Your task to perform on an android device: Do I have any events today? Image 0: 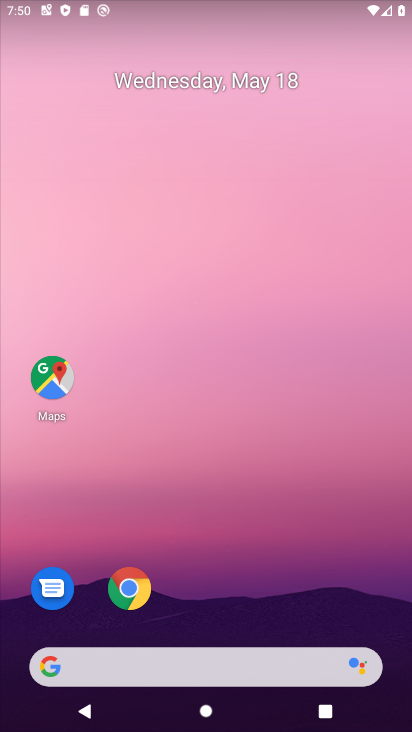
Step 0: drag from (191, 523) to (146, 14)
Your task to perform on an android device: Do I have any events today? Image 1: 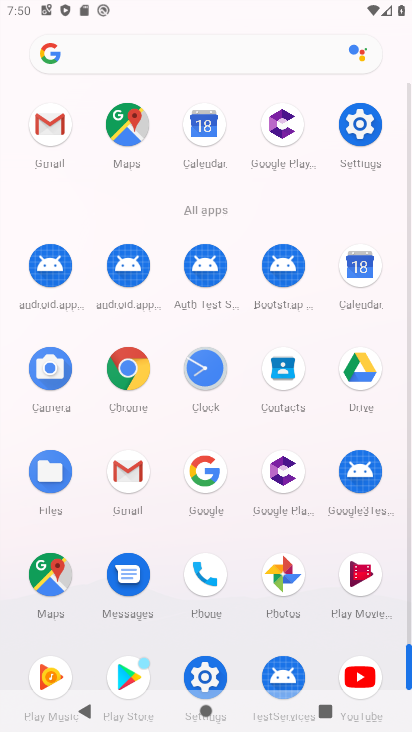
Step 1: drag from (6, 619) to (6, 327)
Your task to perform on an android device: Do I have any events today? Image 2: 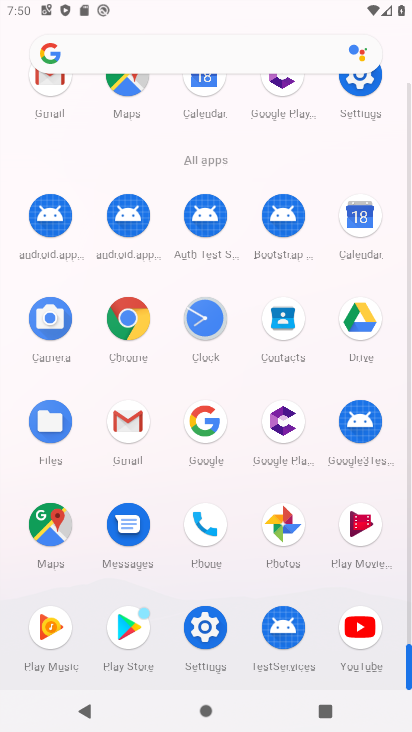
Step 2: click (360, 216)
Your task to perform on an android device: Do I have any events today? Image 3: 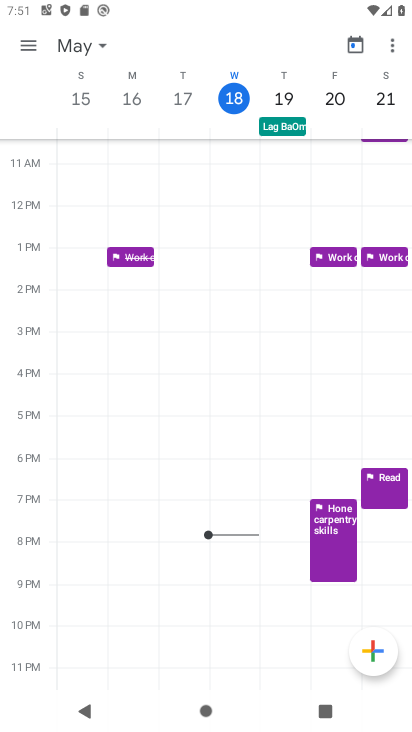
Step 3: click (351, 47)
Your task to perform on an android device: Do I have any events today? Image 4: 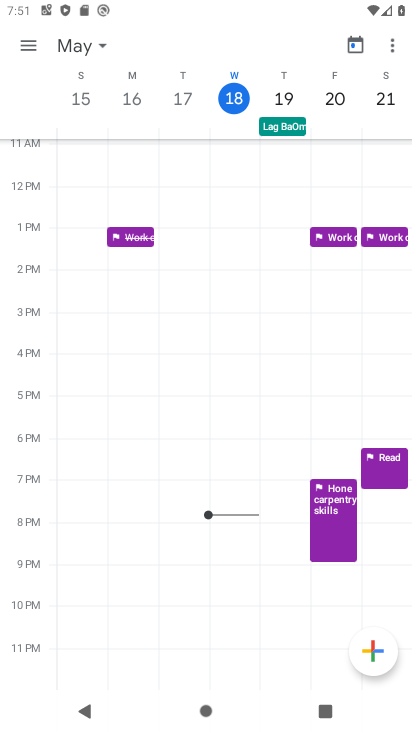
Step 4: task complete